Your task to perform on an android device: turn notification dots off Image 0: 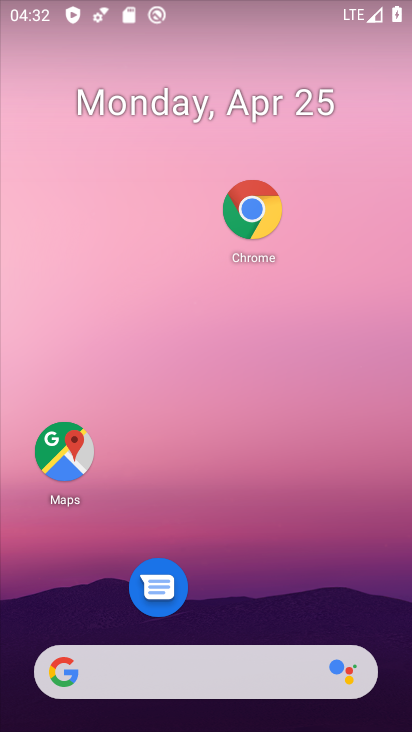
Step 0: drag from (313, 590) to (325, 218)
Your task to perform on an android device: turn notification dots off Image 1: 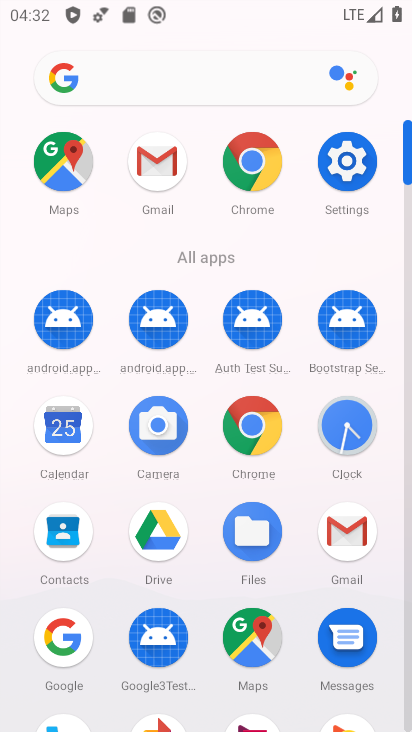
Step 1: click (340, 154)
Your task to perform on an android device: turn notification dots off Image 2: 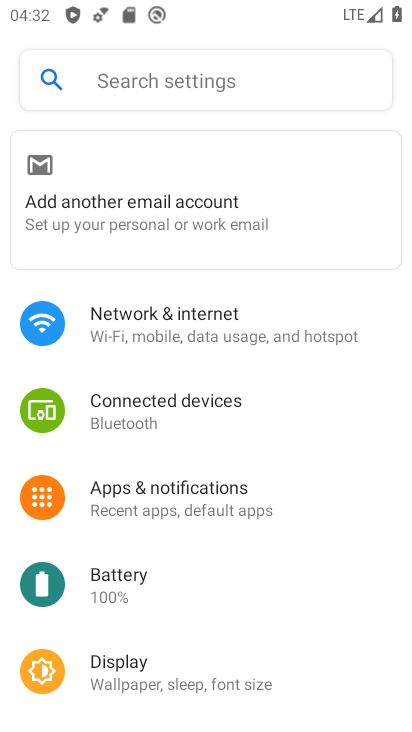
Step 2: click (275, 500)
Your task to perform on an android device: turn notification dots off Image 3: 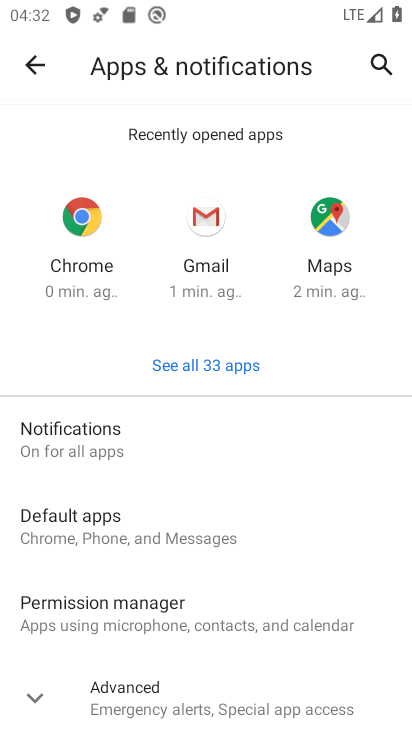
Step 3: click (245, 434)
Your task to perform on an android device: turn notification dots off Image 4: 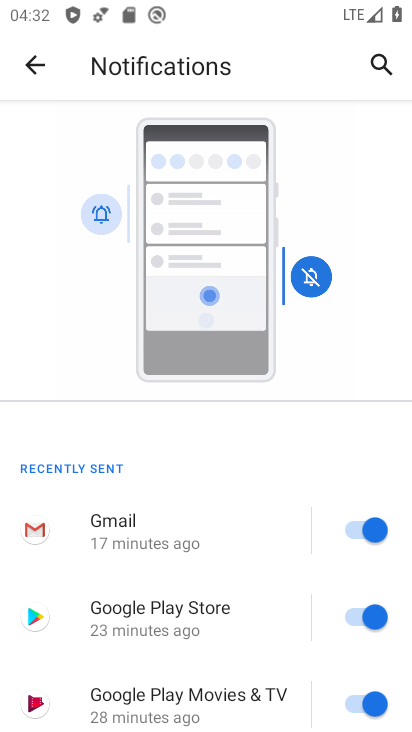
Step 4: drag from (256, 656) to (270, 252)
Your task to perform on an android device: turn notification dots off Image 5: 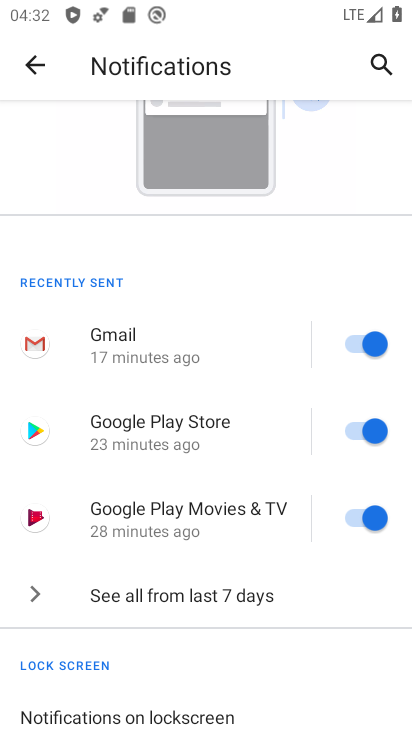
Step 5: drag from (287, 668) to (247, 127)
Your task to perform on an android device: turn notification dots off Image 6: 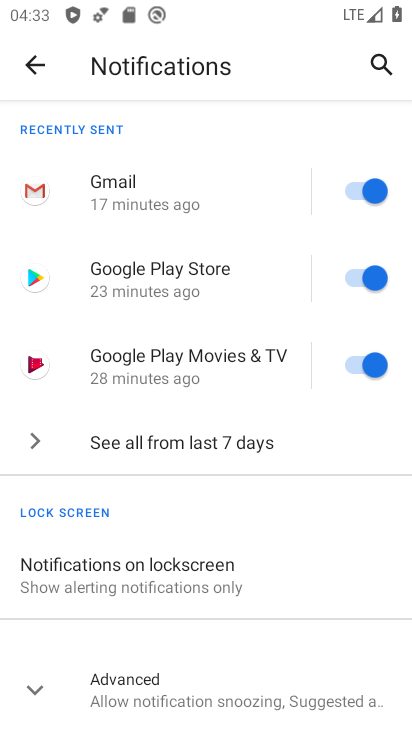
Step 6: click (250, 678)
Your task to perform on an android device: turn notification dots off Image 7: 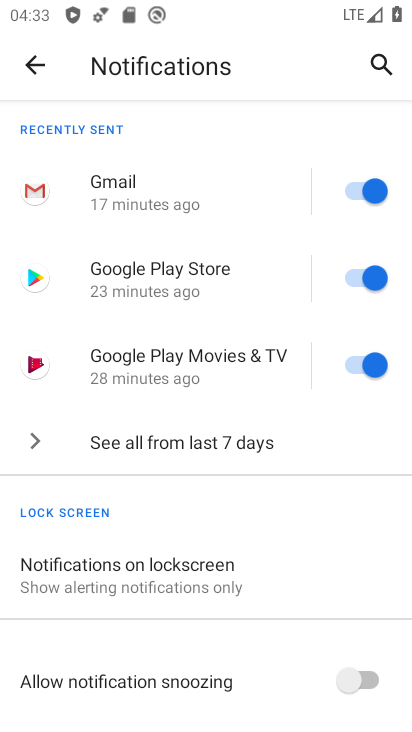
Step 7: drag from (256, 643) to (210, 191)
Your task to perform on an android device: turn notification dots off Image 8: 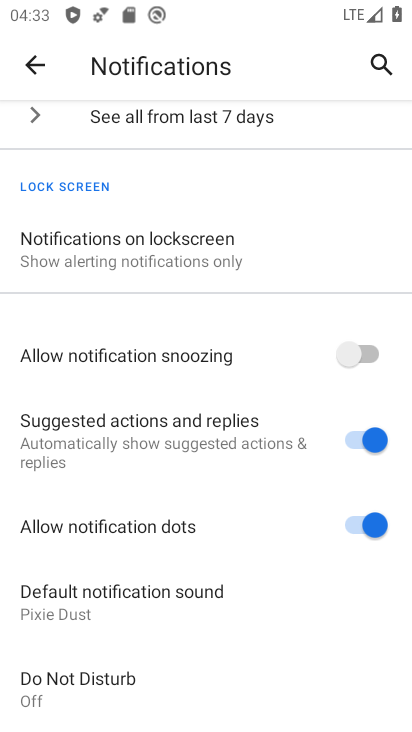
Step 8: click (363, 528)
Your task to perform on an android device: turn notification dots off Image 9: 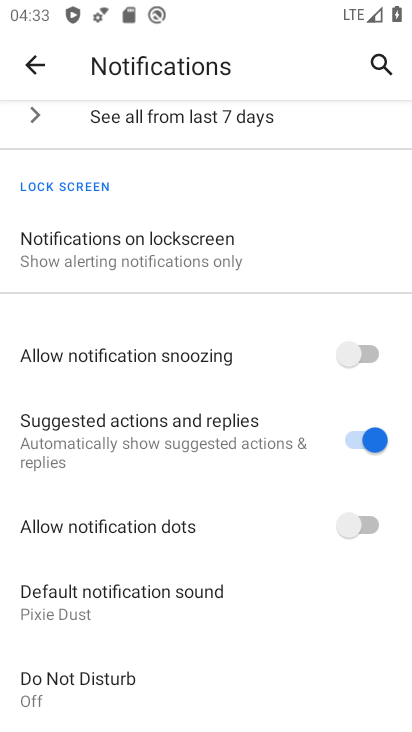
Step 9: task complete